Your task to perform on an android device: turn off wifi Image 0: 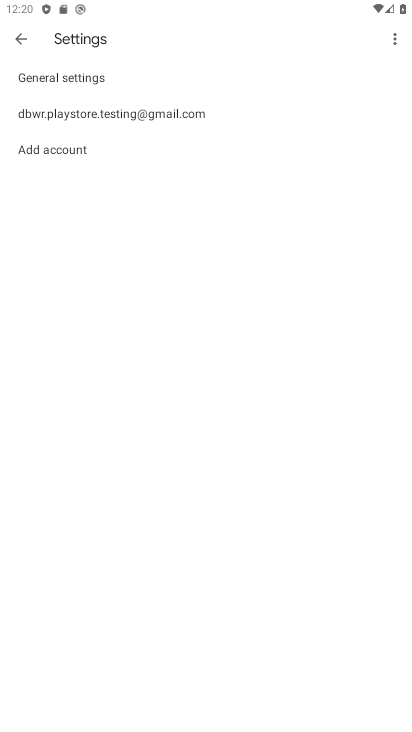
Step 0: press home button
Your task to perform on an android device: turn off wifi Image 1: 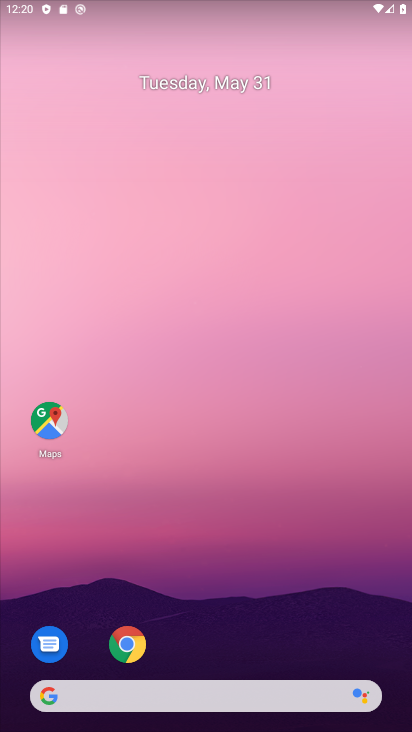
Step 1: drag from (131, 52) to (98, 441)
Your task to perform on an android device: turn off wifi Image 2: 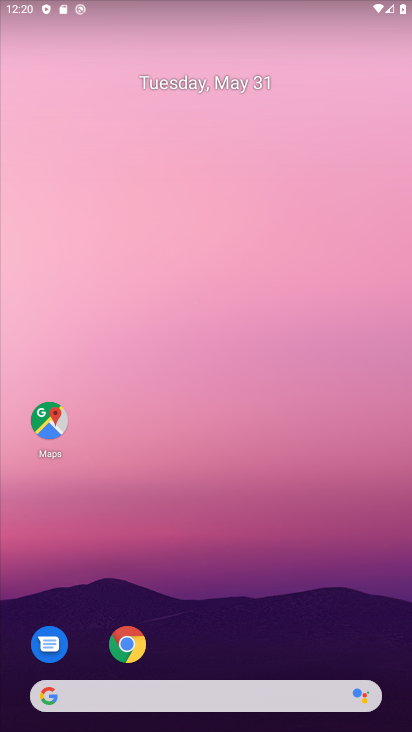
Step 2: drag from (172, 7) to (126, 475)
Your task to perform on an android device: turn off wifi Image 3: 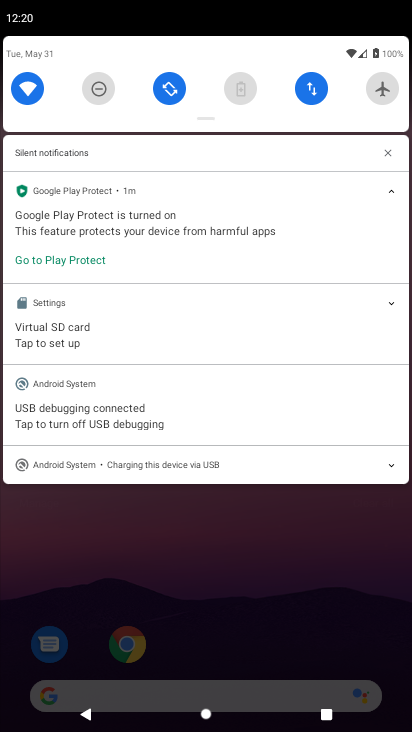
Step 3: drag from (168, 17) to (68, 131)
Your task to perform on an android device: turn off wifi Image 4: 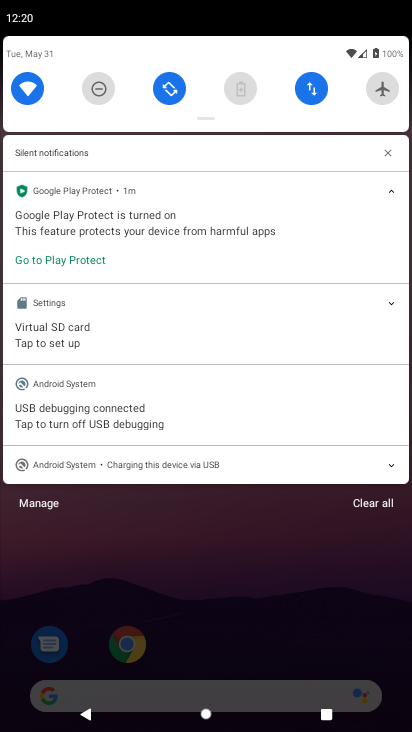
Step 4: click (25, 91)
Your task to perform on an android device: turn off wifi Image 5: 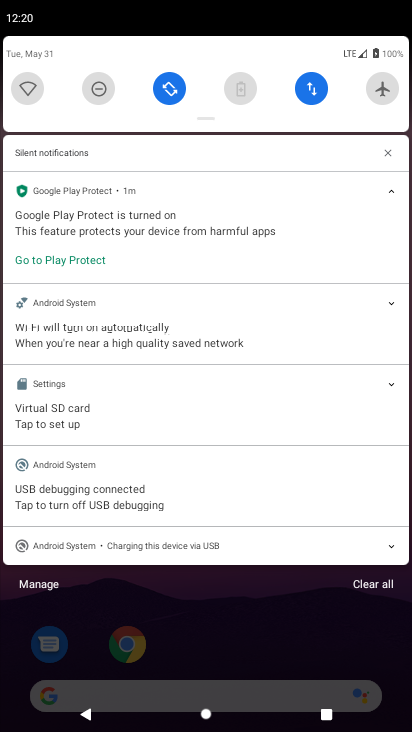
Step 5: task complete